Your task to perform on an android device: turn on improve location accuracy Image 0: 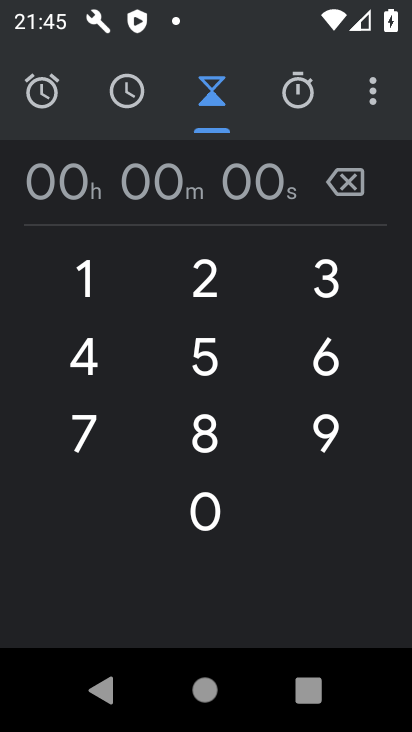
Step 0: press back button
Your task to perform on an android device: turn on improve location accuracy Image 1: 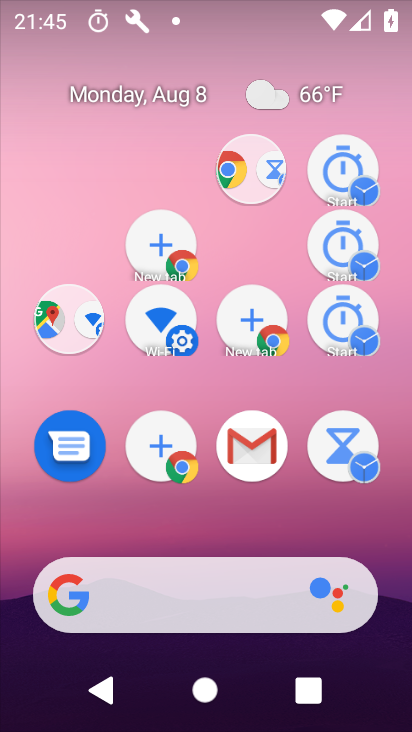
Step 1: drag from (262, 632) to (259, 256)
Your task to perform on an android device: turn on improve location accuracy Image 2: 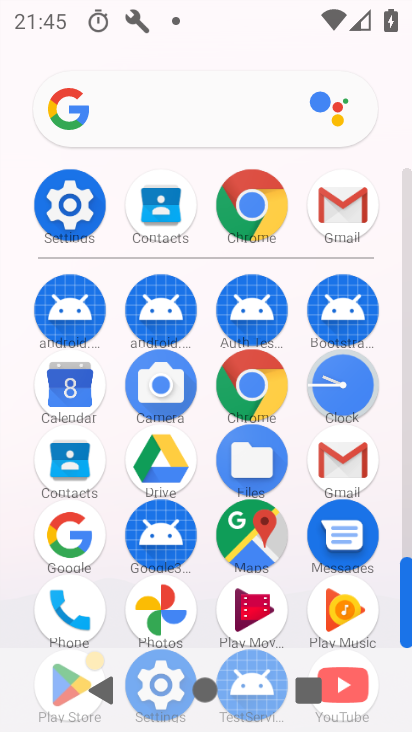
Step 2: click (82, 192)
Your task to perform on an android device: turn on improve location accuracy Image 3: 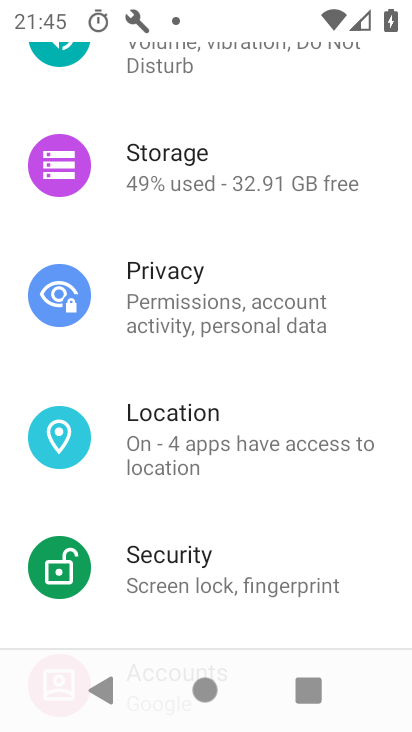
Step 3: click (157, 451)
Your task to perform on an android device: turn on improve location accuracy Image 4: 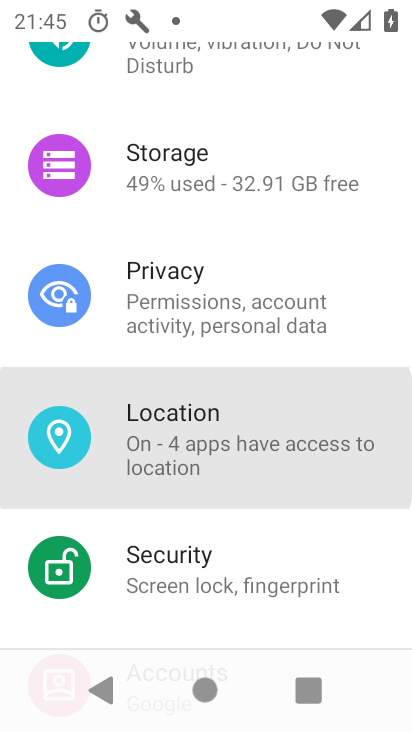
Step 4: click (173, 459)
Your task to perform on an android device: turn on improve location accuracy Image 5: 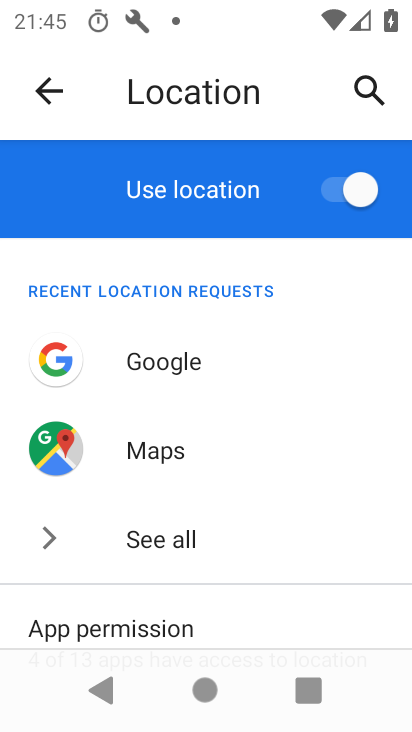
Step 5: drag from (206, 555) to (165, 284)
Your task to perform on an android device: turn on improve location accuracy Image 6: 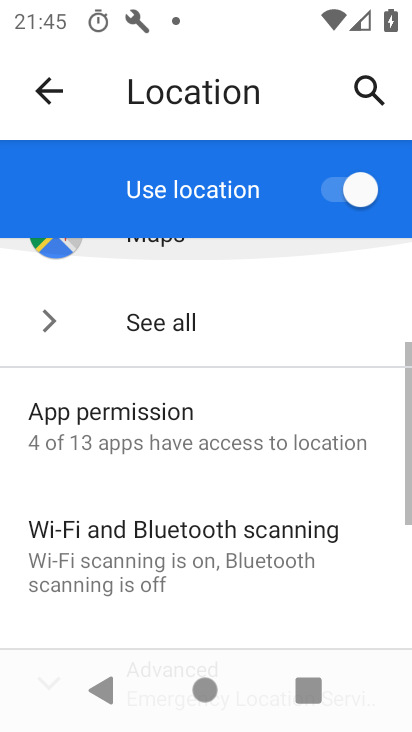
Step 6: drag from (179, 317) to (179, 226)
Your task to perform on an android device: turn on improve location accuracy Image 7: 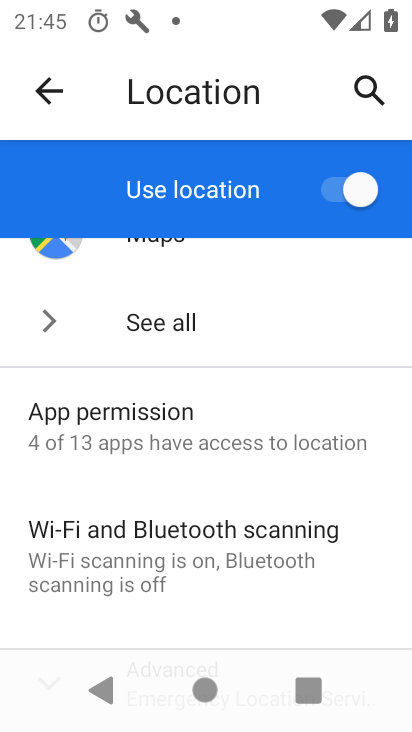
Step 7: drag from (195, 453) to (195, 304)
Your task to perform on an android device: turn on improve location accuracy Image 8: 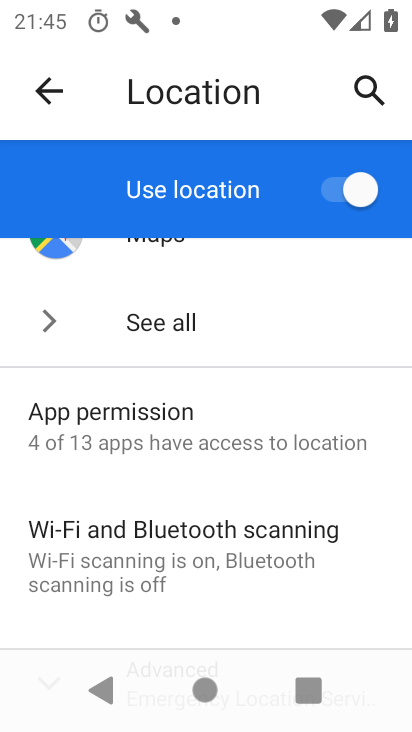
Step 8: drag from (205, 539) to (192, 265)
Your task to perform on an android device: turn on improve location accuracy Image 9: 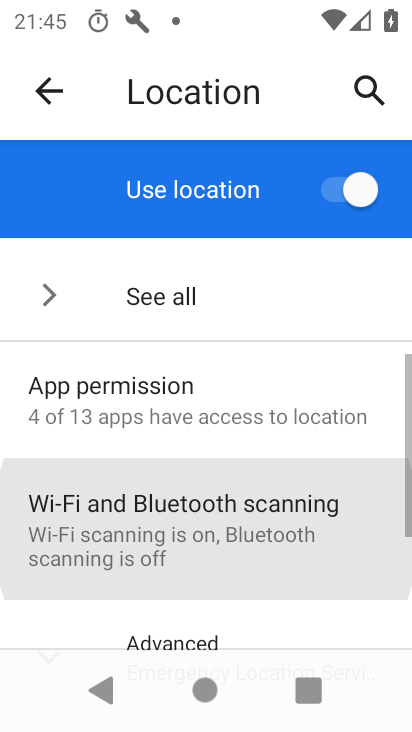
Step 9: drag from (236, 522) to (249, 281)
Your task to perform on an android device: turn on improve location accuracy Image 10: 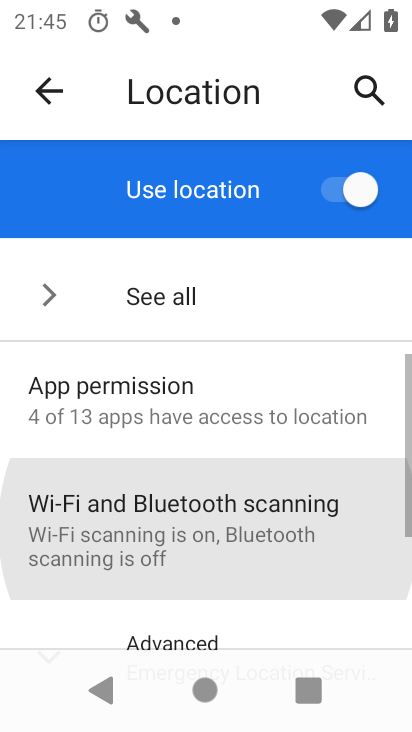
Step 10: drag from (265, 516) to (264, 294)
Your task to perform on an android device: turn on improve location accuracy Image 11: 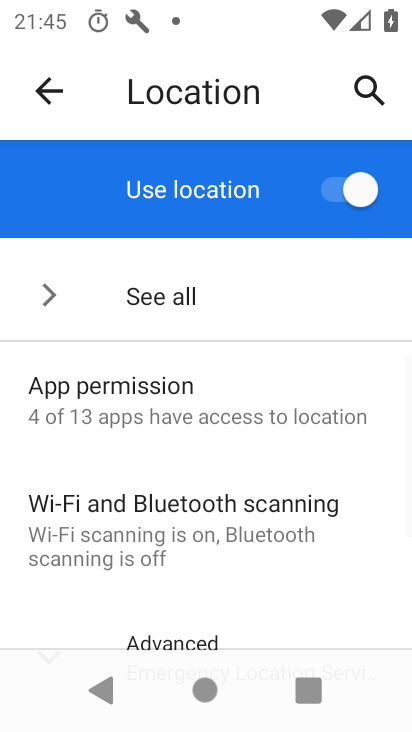
Step 11: drag from (240, 527) to (241, 256)
Your task to perform on an android device: turn on improve location accuracy Image 12: 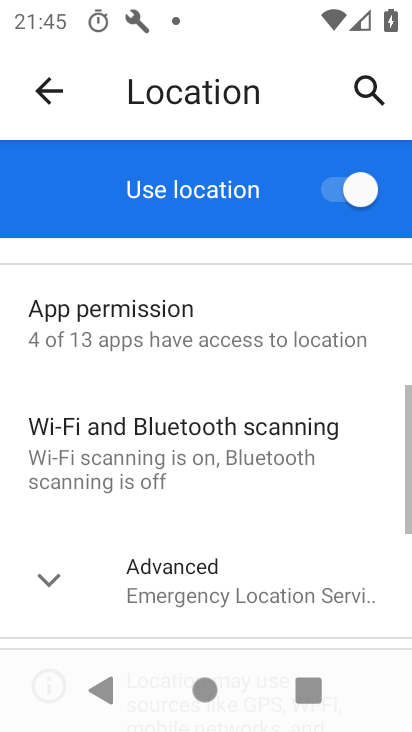
Step 12: drag from (264, 404) to (264, 256)
Your task to perform on an android device: turn on improve location accuracy Image 13: 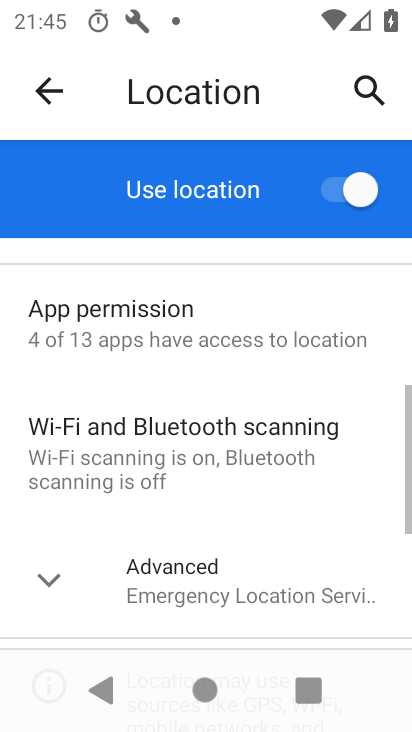
Step 13: drag from (252, 472) to (240, 280)
Your task to perform on an android device: turn on improve location accuracy Image 14: 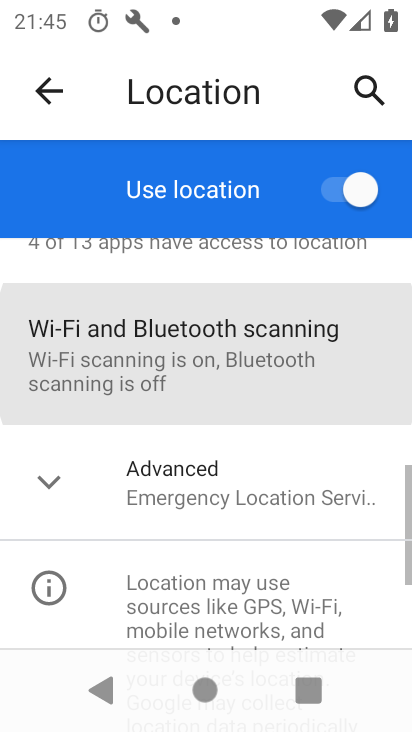
Step 14: drag from (220, 558) to (214, 299)
Your task to perform on an android device: turn on improve location accuracy Image 15: 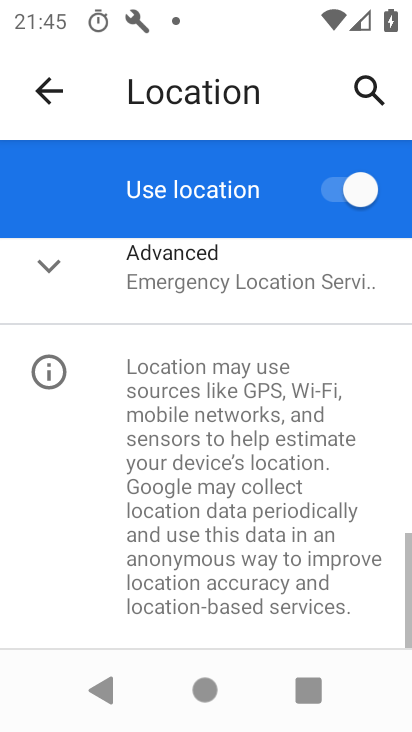
Step 15: drag from (236, 503) to (236, 334)
Your task to perform on an android device: turn on improve location accuracy Image 16: 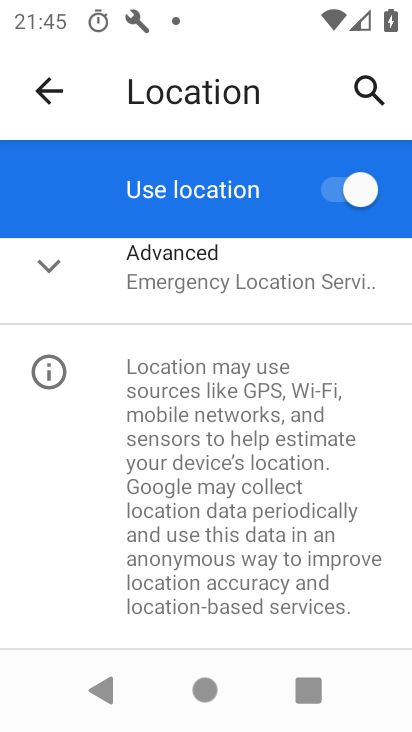
Step 16: click (197, 281)
Your task to perform on an android device: turn on improve location accuracy Image 17: 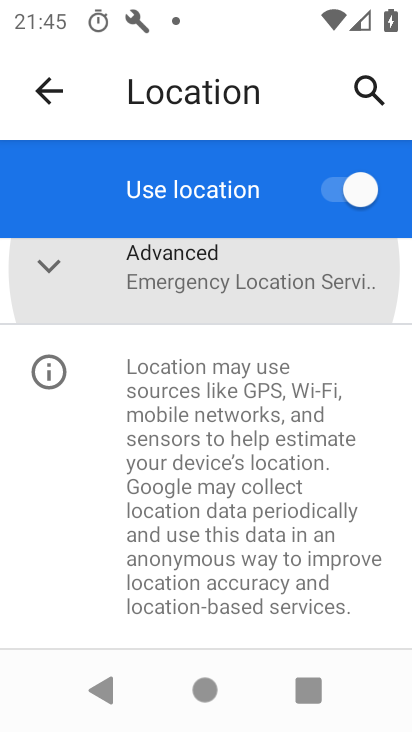
Step 17: click (197, 280)
Your task to perform on an android device: turn on improve location accuracy Image 18: 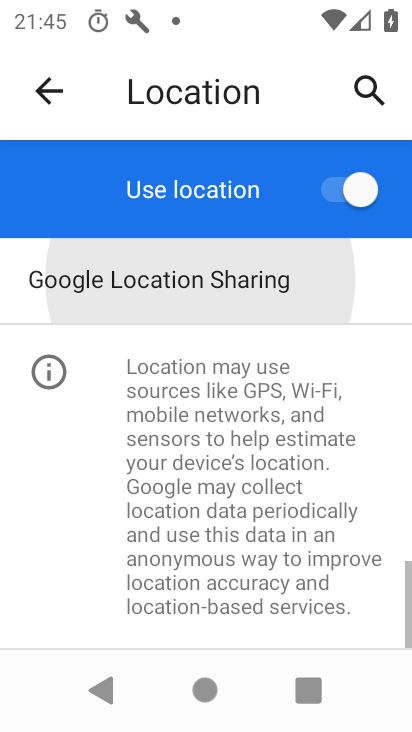
Step 18: click (197, 278)
Your task to perform on an android device: turn on improve location accuracy Image 19: 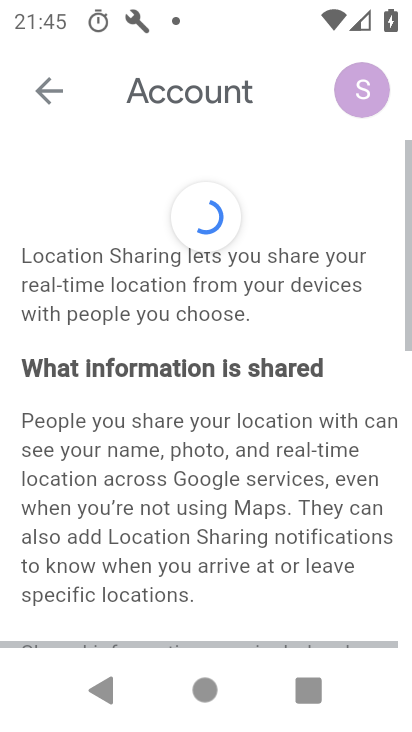
Step 19: click (57, 103)
Your task to perform on an android device: turn on improve location accuracy Image 20: 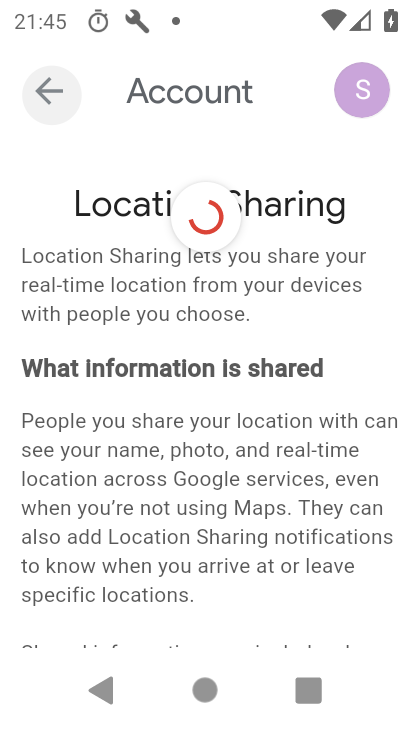
Step 20: click (52, 98)
Your task to perform on an android device: turn on improve location accuracy Image 21: 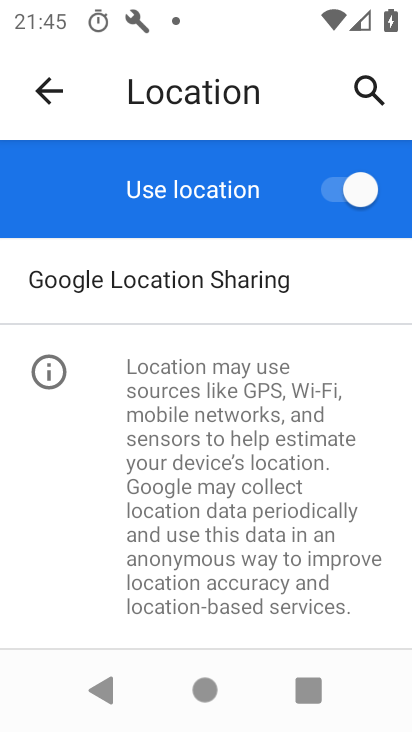
Step 21: click (211, 284)
Your task to perform on an android device: turn on improve location accuracy Image 22: 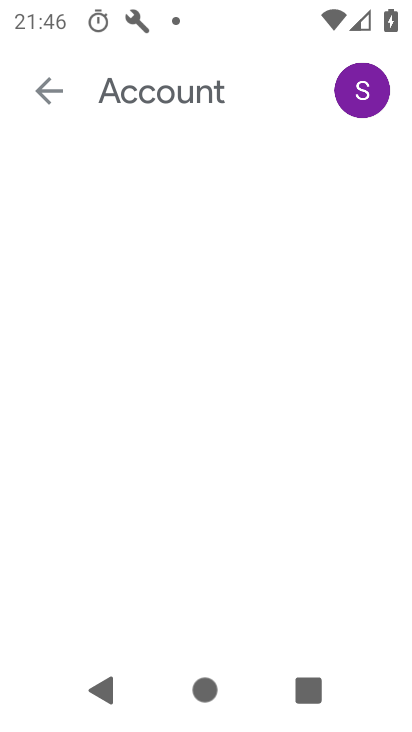
Step 22: click (46, 67)
Your task to perform on an android device: turn on improve location accuracy Image 23: 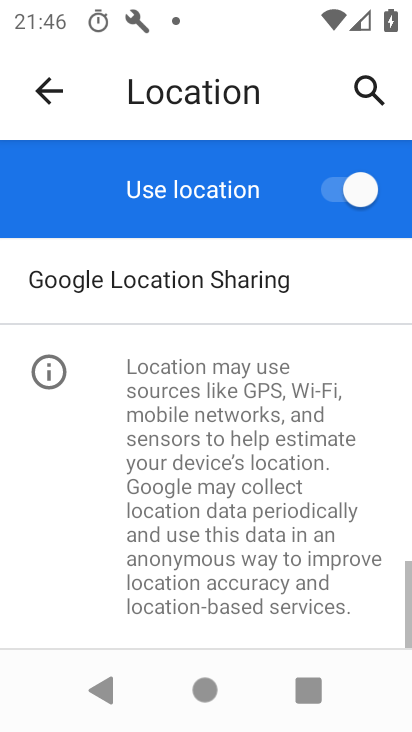
Step 23: drag from (220, 275) to (274, 506)
Your task to perform on an android device: turn on improve location accuracy Image 24: 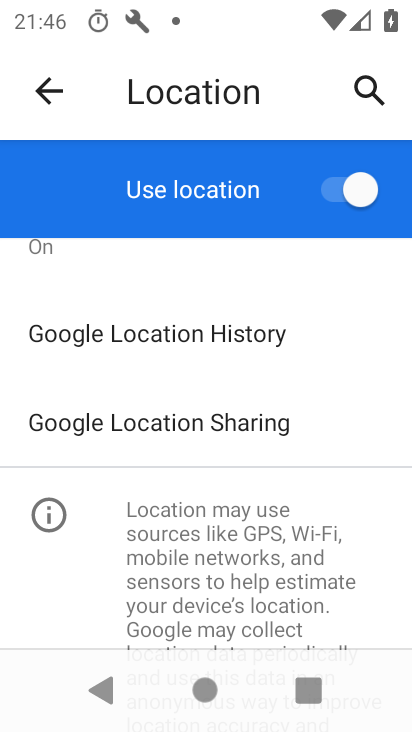
Step 24: drag from (181, 309) to (226, 522)
Your task to perform on an android device: turn on improve location accuracy Image 25: 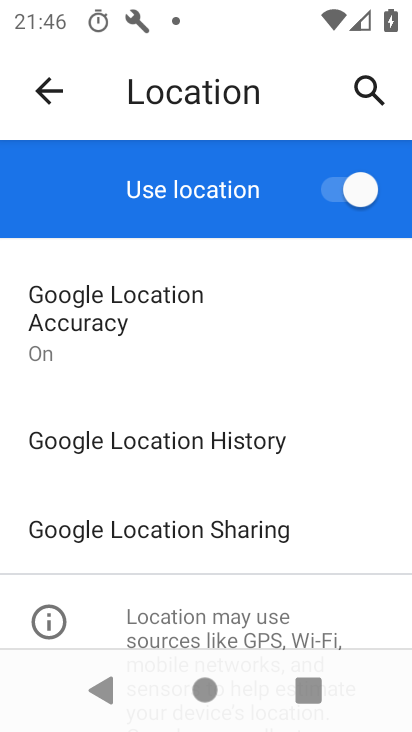
Step 25: click (134, 309)
Your task to perform on an android device: turn on improve location accuracy Image 26: 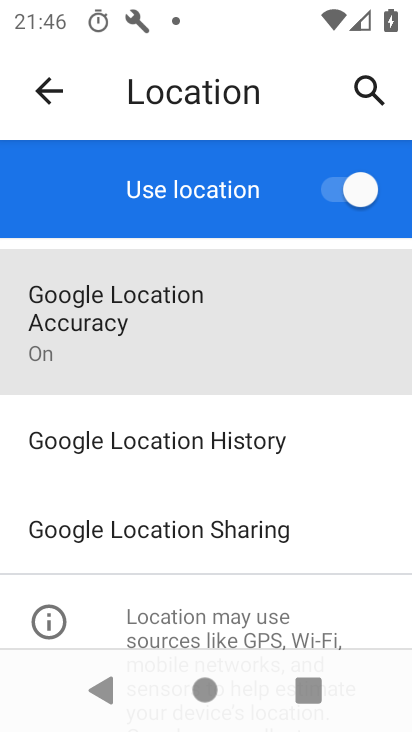
Step 26: click (132, 310)
Your task to perform on an android device: turn on improve location accuracy Image 27: 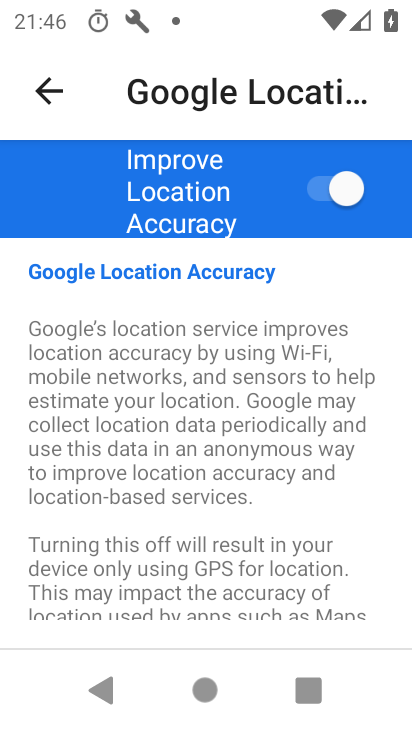
Step 27: task complete